Your task to perform on an android device: check the backup settings in the google photos Image 0: 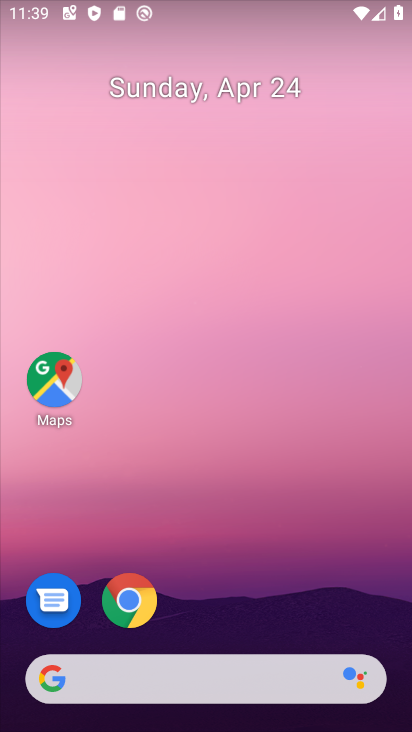
Step 0: drag from (245, 682) to (283, 2)
Your task to perform on an android device: check the backup settings in the google photos Image 1: 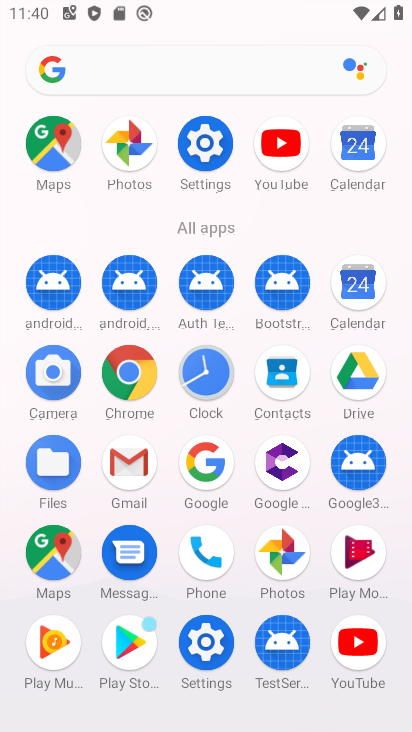
Step 1: click (266, 544)
Your task to perform on an android device: check the backup settings in the google photos Image 2: 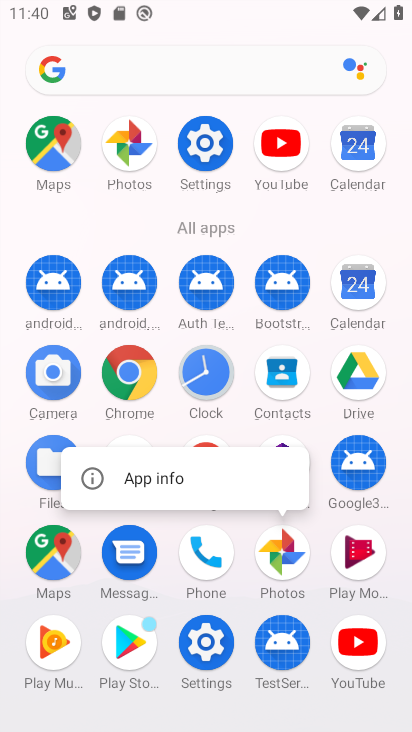
Step 2: click (273, 548)
Your task to perform on an android device: check the backup settings in the google photos Image 3: 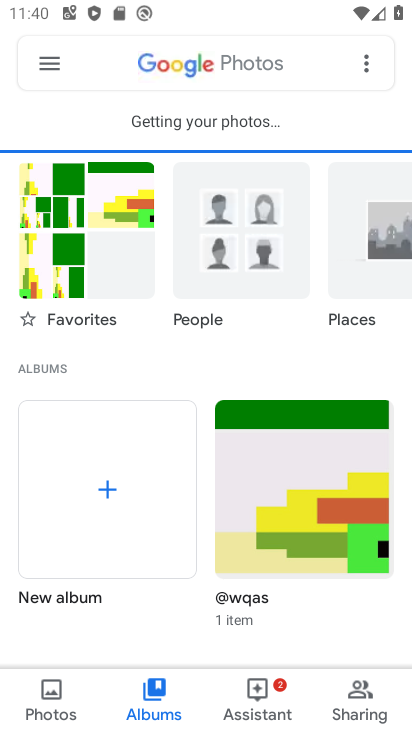
Step 3: click (52, 73)
Your task to perform on an android device: check the backup settings in the google photos Image 4: 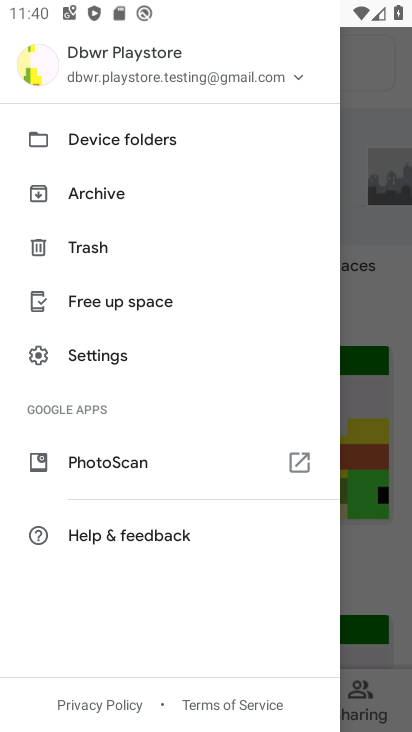
Step 4: click (113, 357)
Your task to perform on an android device: check the backup settings in the google photos Image 5: 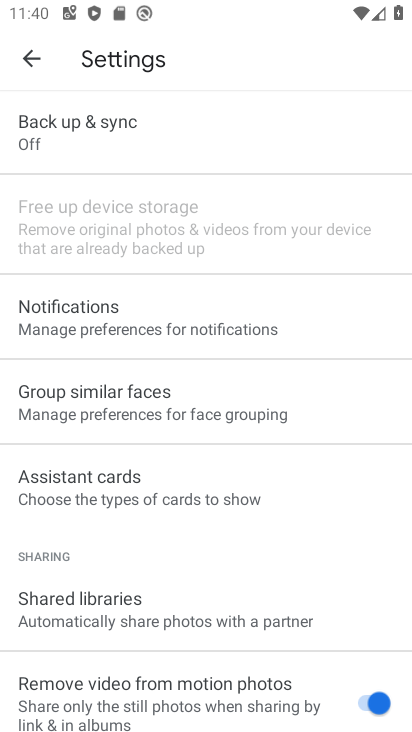
Step 5: task complete